Your task to perform on an android device: Go to battery settings Image 0: 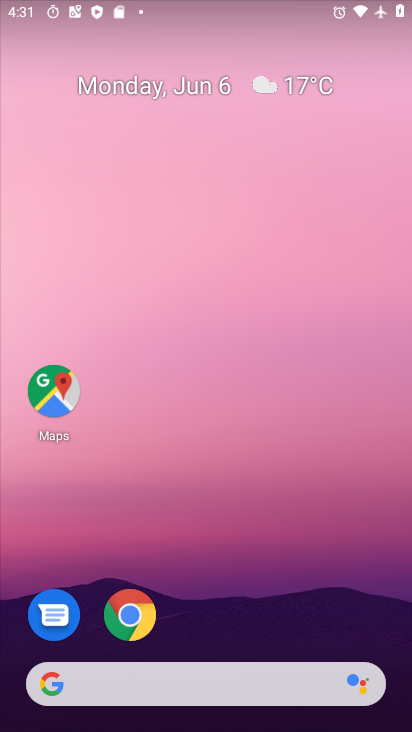
Step 0: drag from (282, 579) to (231, 21)
Your task to perform on an android device: Go to battery settings Image 1: 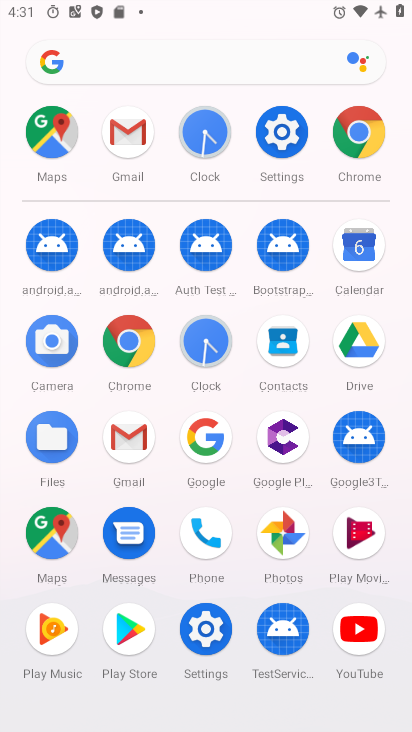
Step 1: drag from (6, 622) to (20, 302)
Your task to perform on an android device: Go to battery settings Image 2: 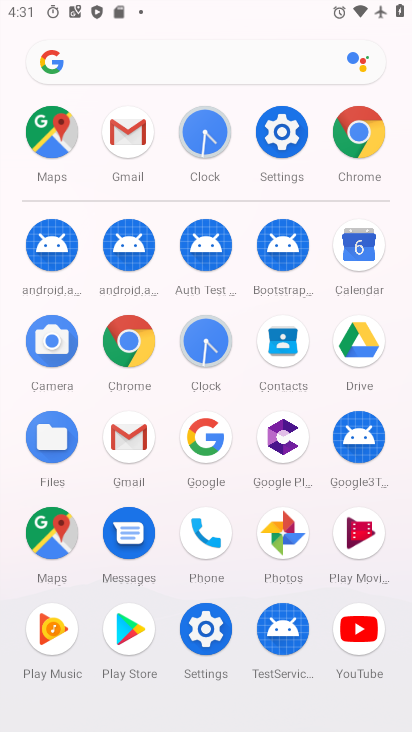
Step 2: click (203, 625)
Your task to perform on an android device: Go to battery settings Image 3: 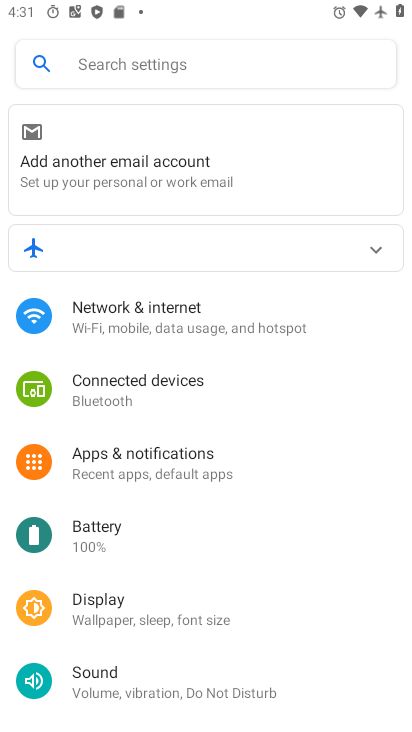
Step 3: click (127, 542)
Your task to perform on an android device: Go to battery settings Image 4: 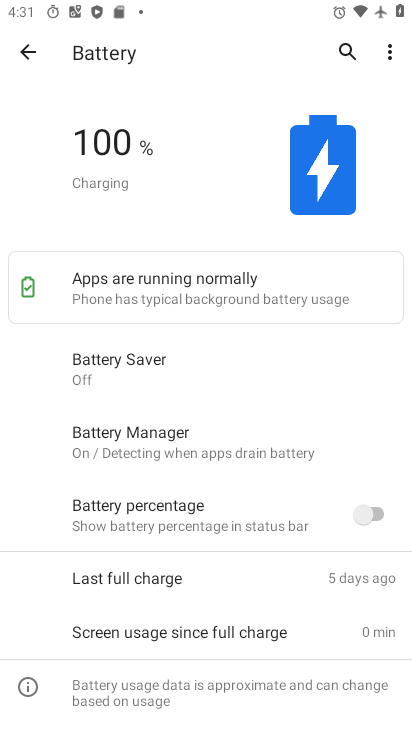
Step 4: task complete